Your task to perform on an android device: install app "Truecaller" Image 0: 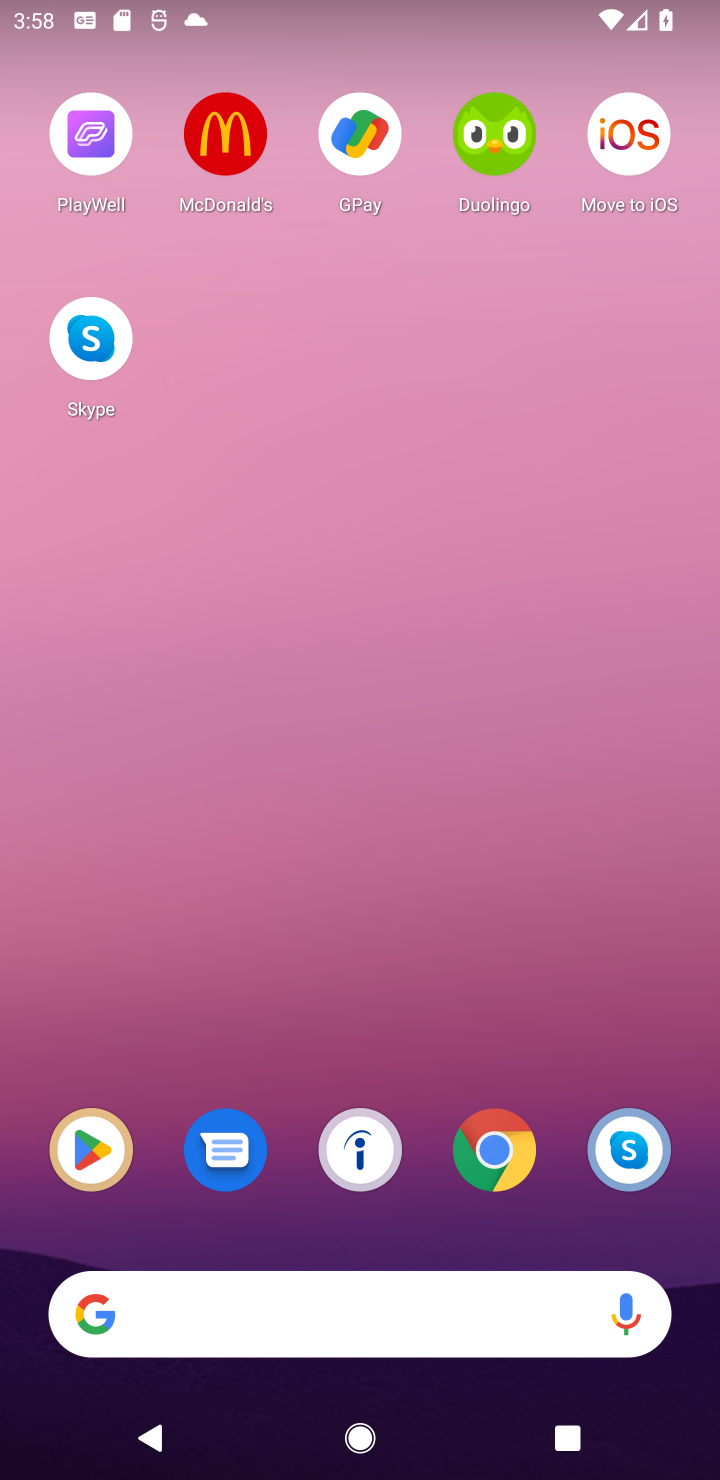
Step 0: click (96, 1144)
Your task to perform on an android device: install app "Truecaller" Image 1: 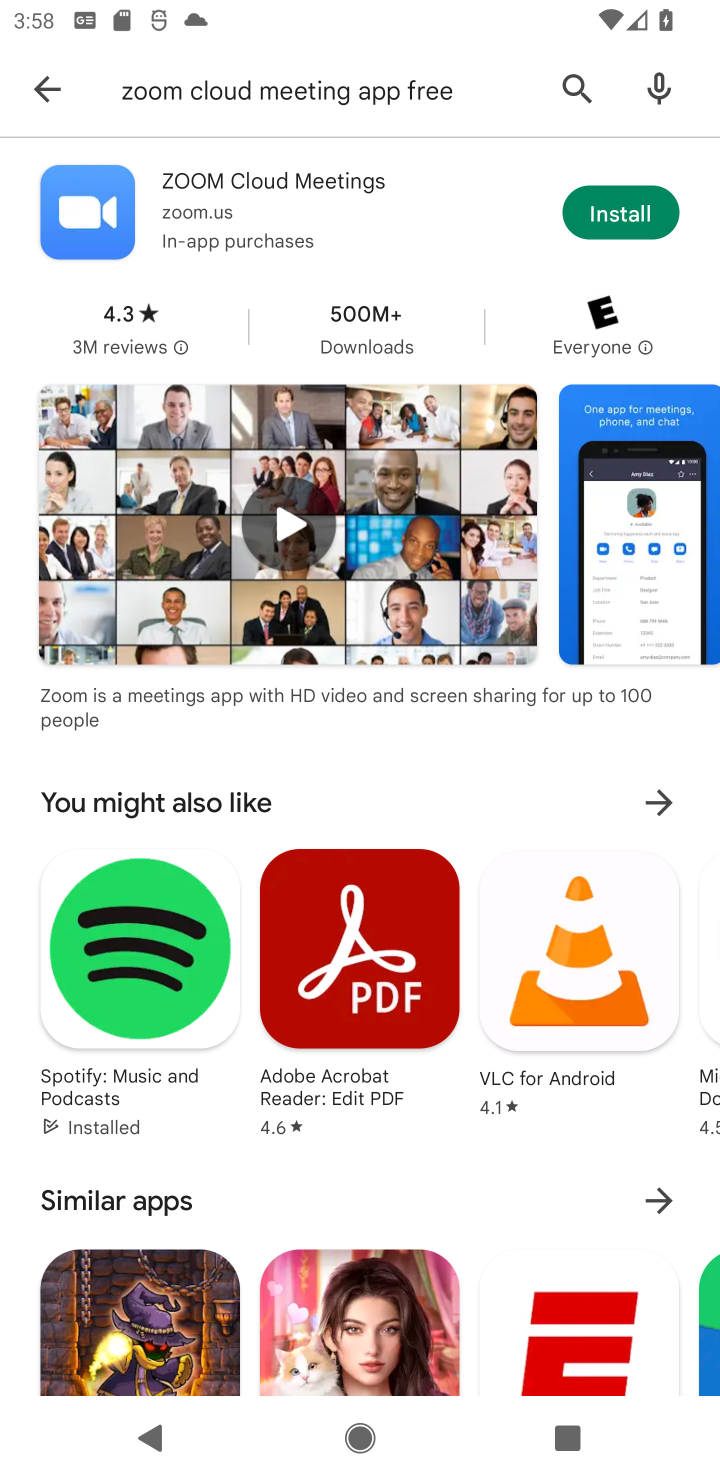
Step 1: click (576, 78)
Your task to perform on an android device: install app "Truecaller" Image 2: 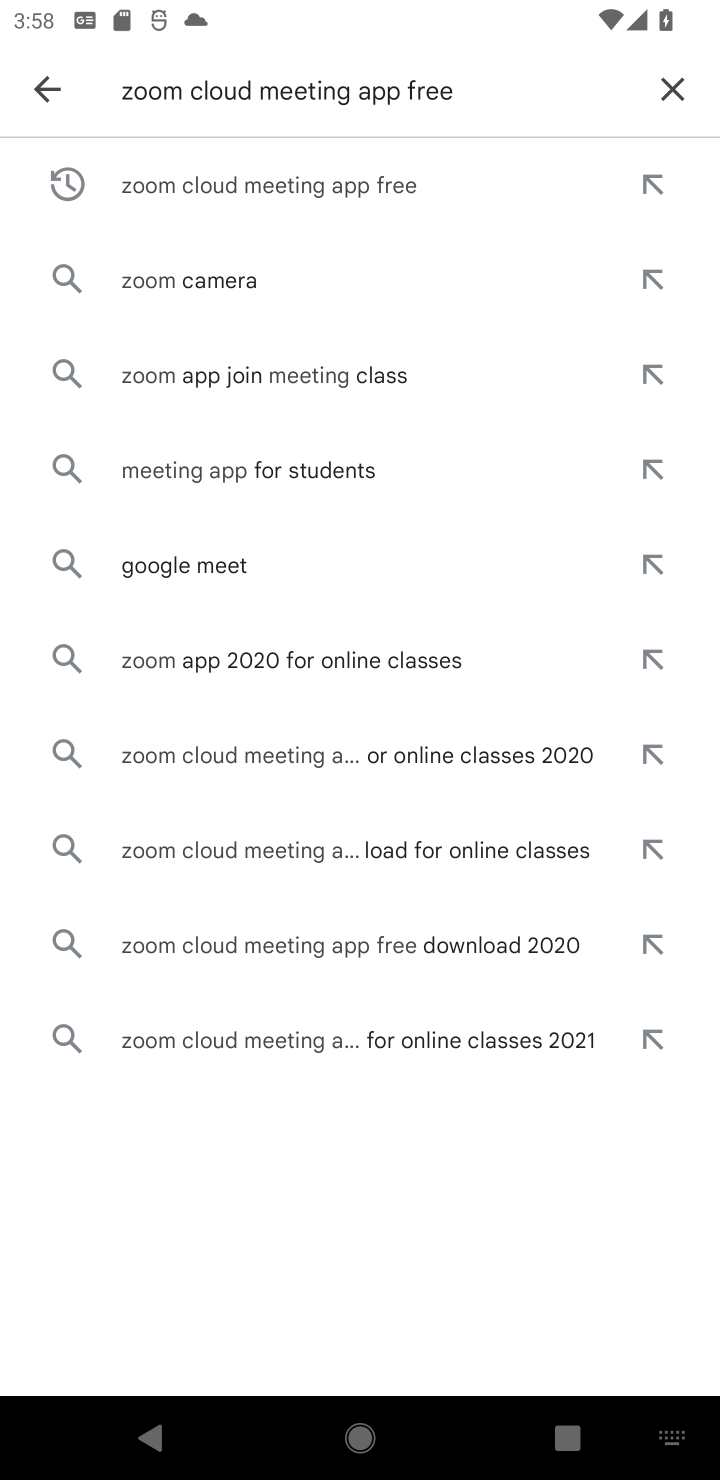
Step 2: click (665, 106)
Your task to perform on an android device: install app "Truecaller" Image 3: 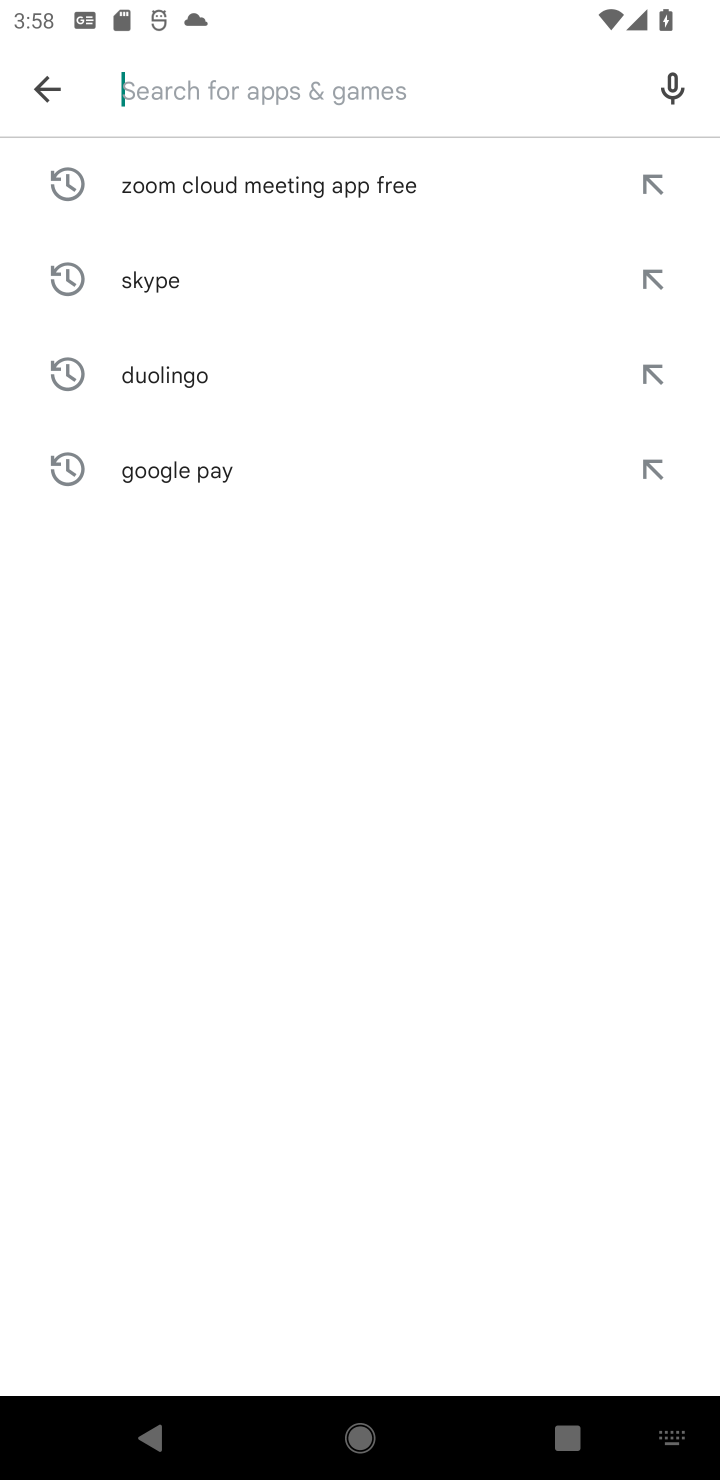
Step 3: type "true caller"
Your task to perform on an android device: install app "Truecaller" Image 4: 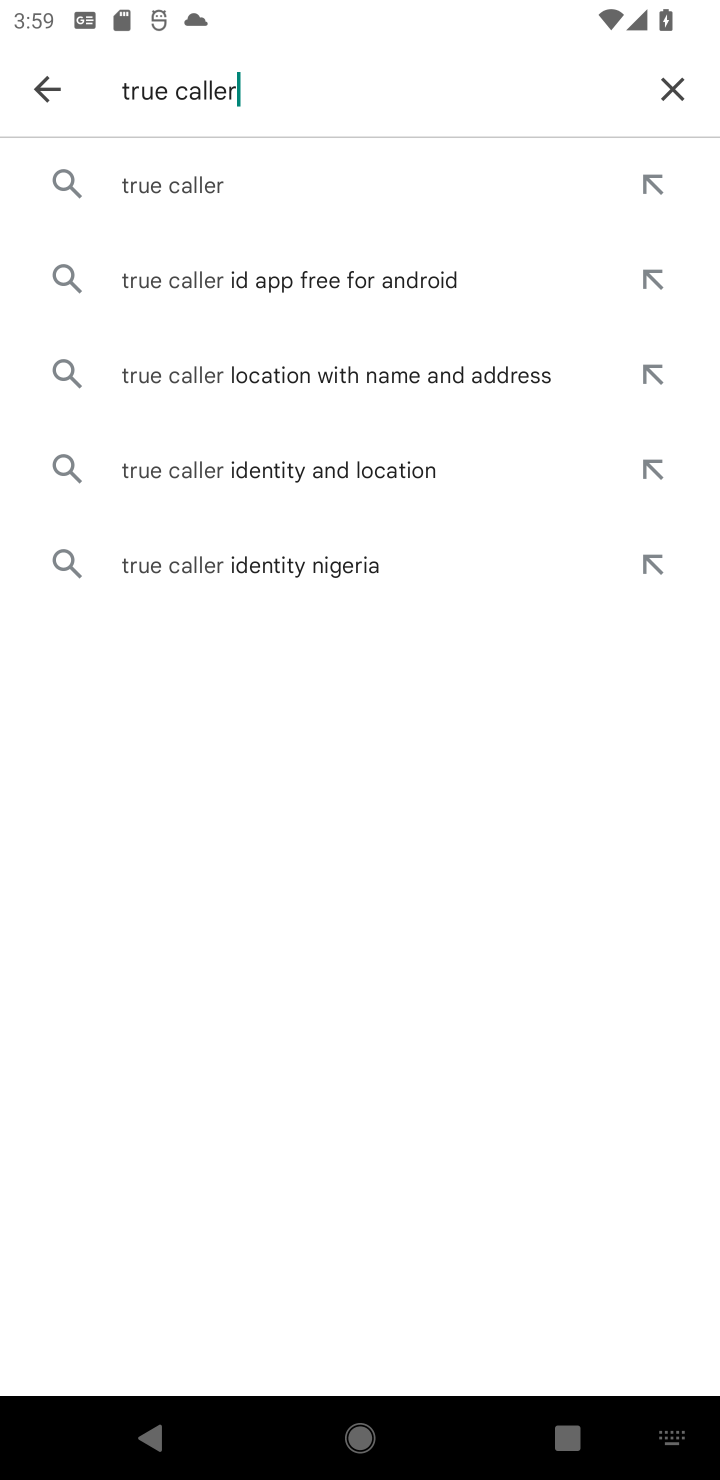
Step 4: click (164, 149)
Your task to perform on an android device: install app "Truecaller" Image 5: 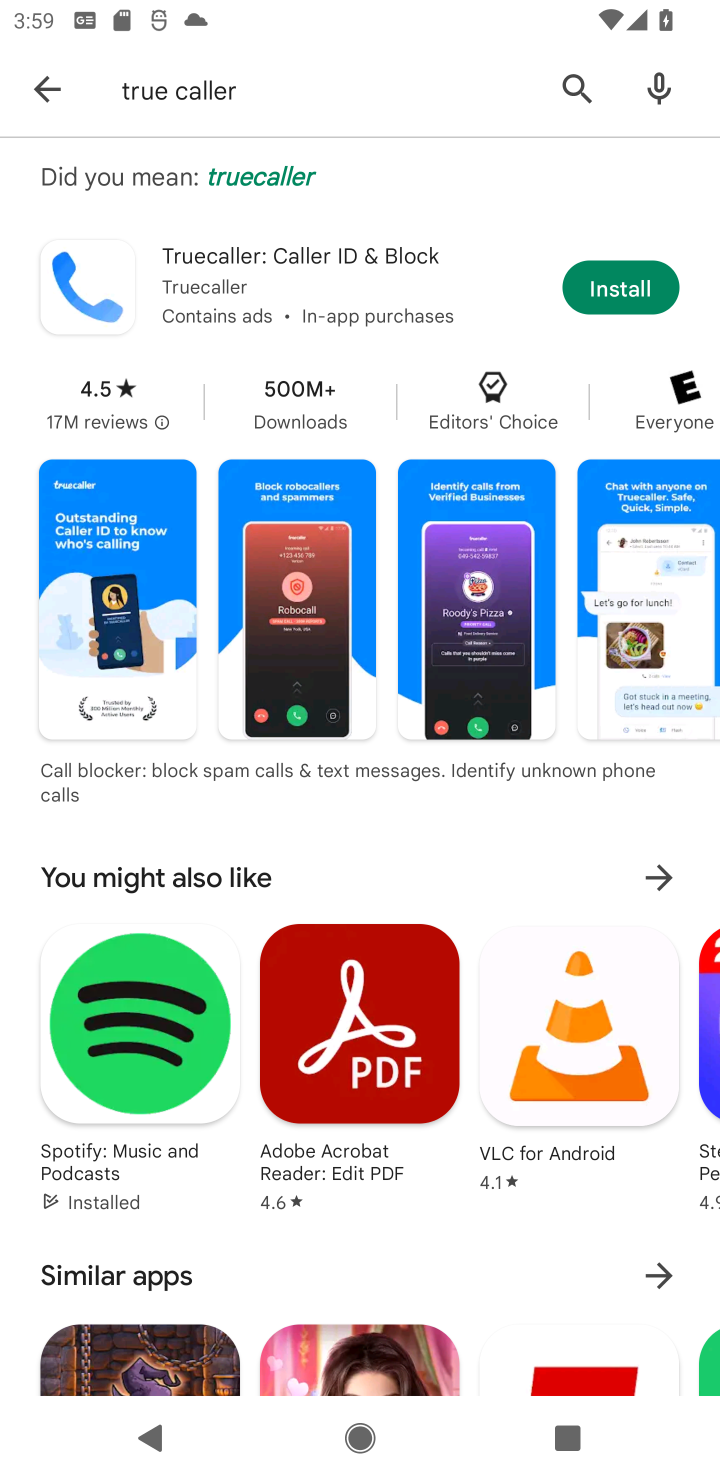
Step 5: click (584, 279)
Your task to perform on an android device: install app "Truecaller" Image 6: 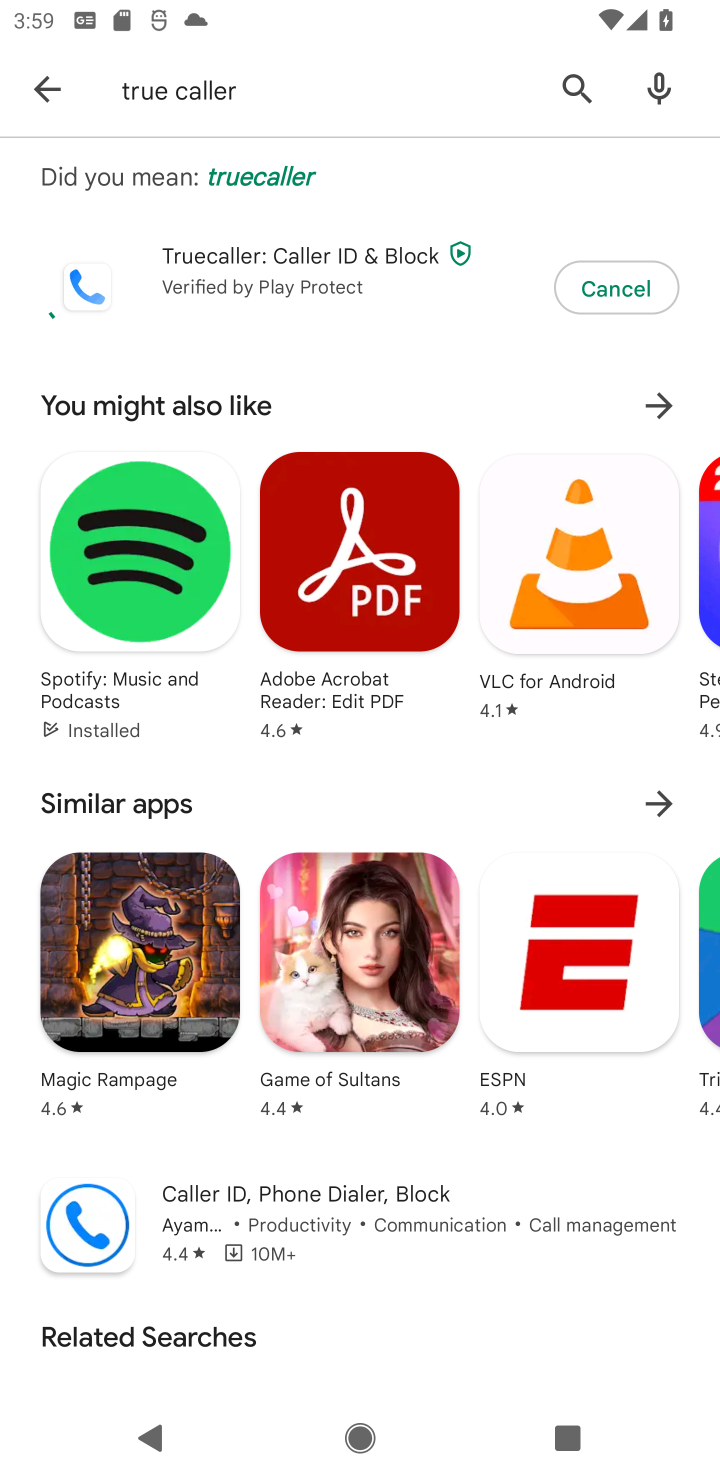
Step 6: task complete